Your task to perform on an android device: choose inbox layout in the gmail app Image 0: 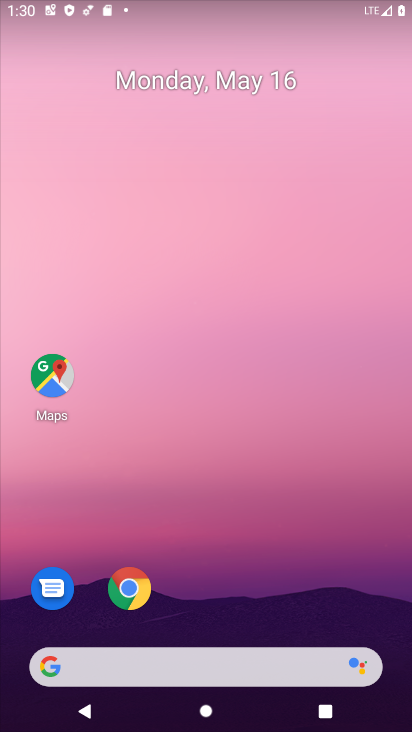
Step 0: drag from (235, 584) to (206, 93)
Your task to perform on an android device: choose inbox layout in the gmail app Image 1: 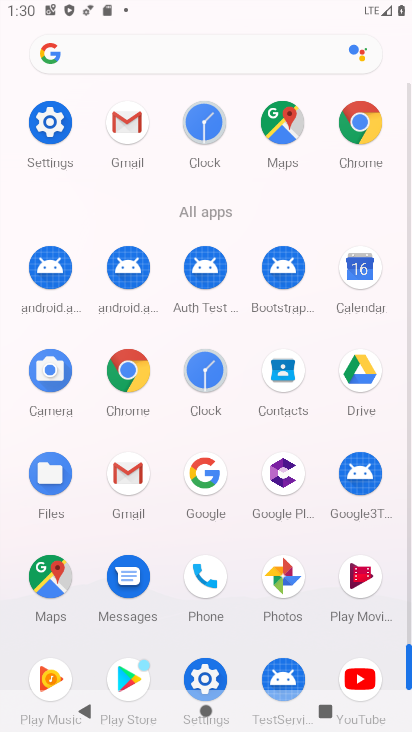
Step 1: click (123, 122)
Your task to perform on an android device: choose inbox layout in the gmail app Image 2: 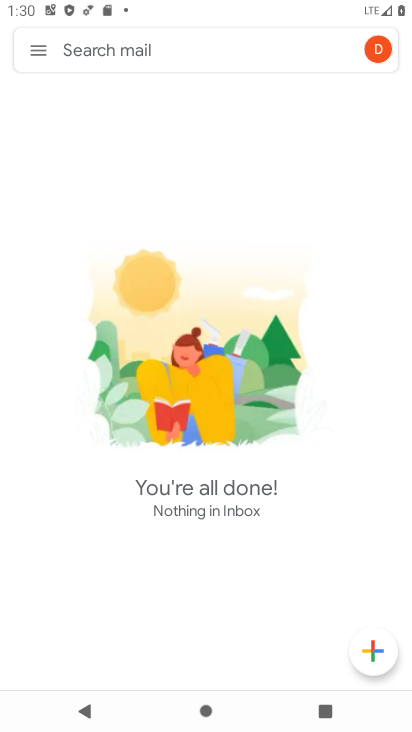
Step 2: click (41, 52)
Your task to perform on an android device: choose inbox layout in the gmail app Image 3: 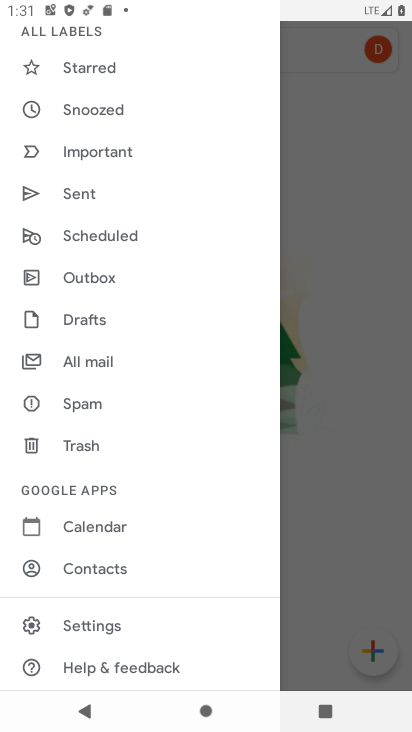
Step 3: click (99, 628)
Your task to perform on an android device: choose inbox layout in the gmail app Image 4: 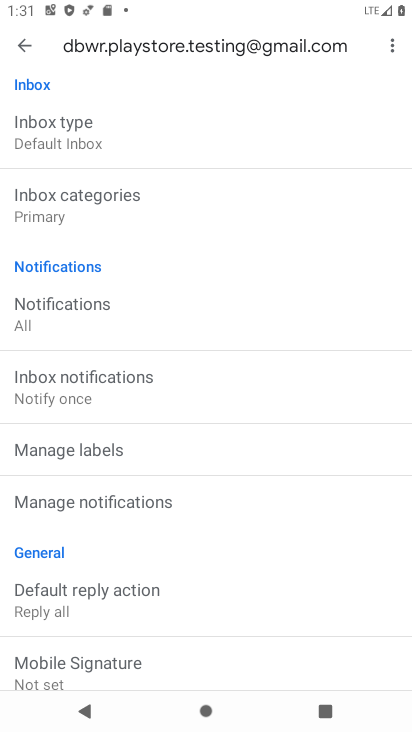
Step 4: click (66, 148)
Your task to perform on an android device: choose inbox layout in the gmail app Image 5: 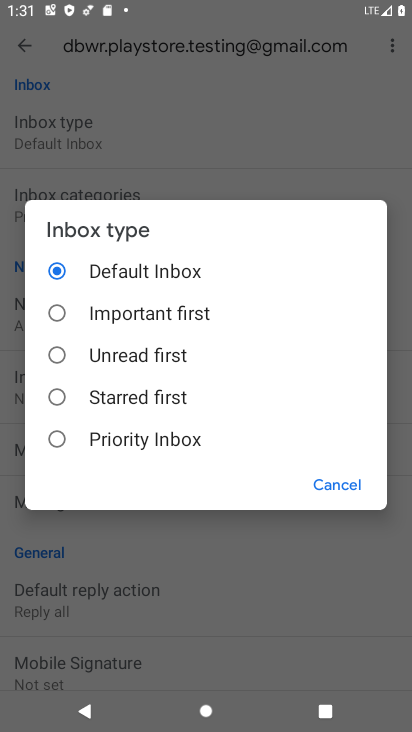
Step 5: click (54, 316)
Your task to perform on an android device: choose inbox layout in the gmail app Image 6: 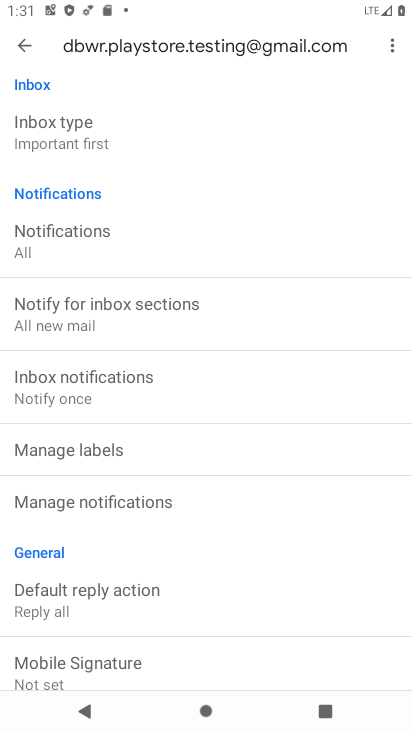
Step 6: task complete